Your task to perform on an android device: View the shopping cart on walmart.com. Image 0: 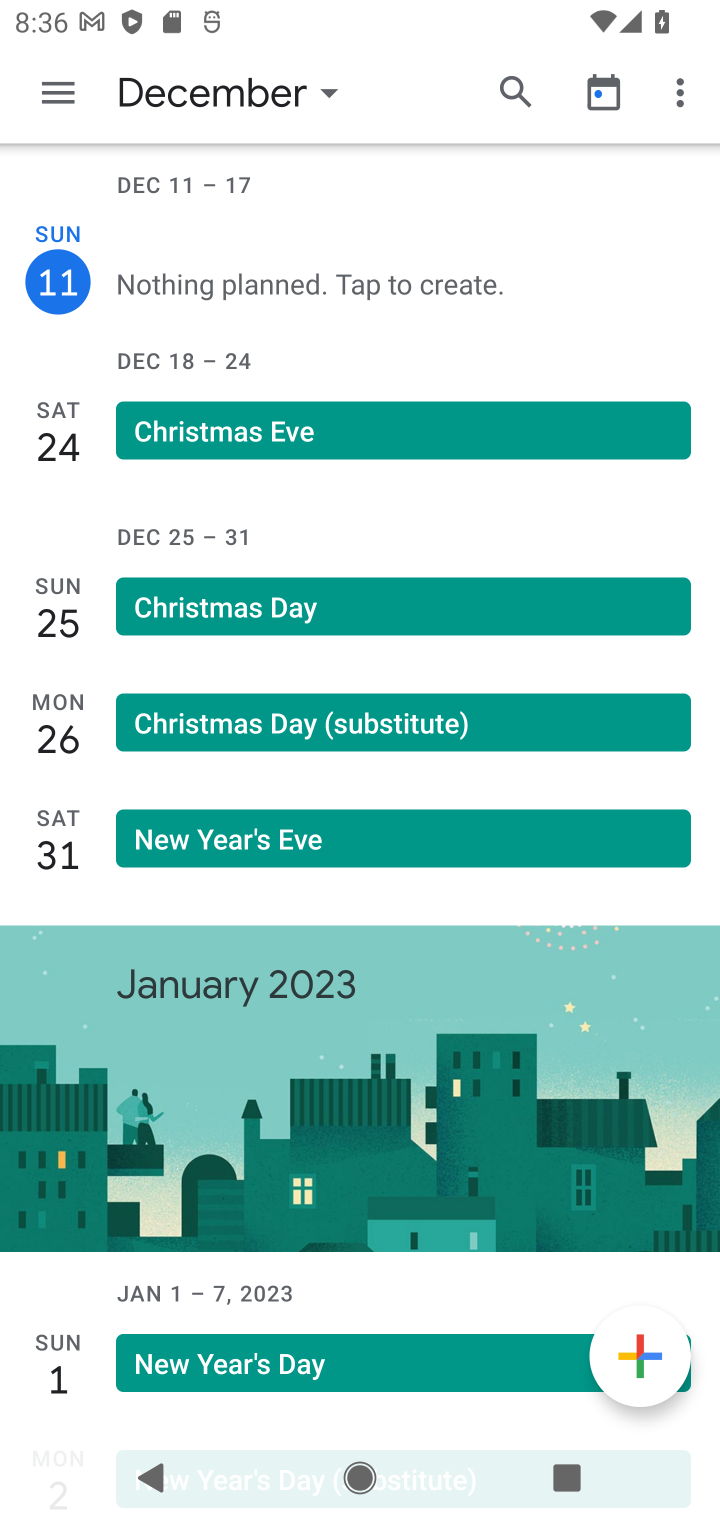
Step 0: press home button
Your task to perform on an android device: View the shopping cart on walmart.com. Image 1: 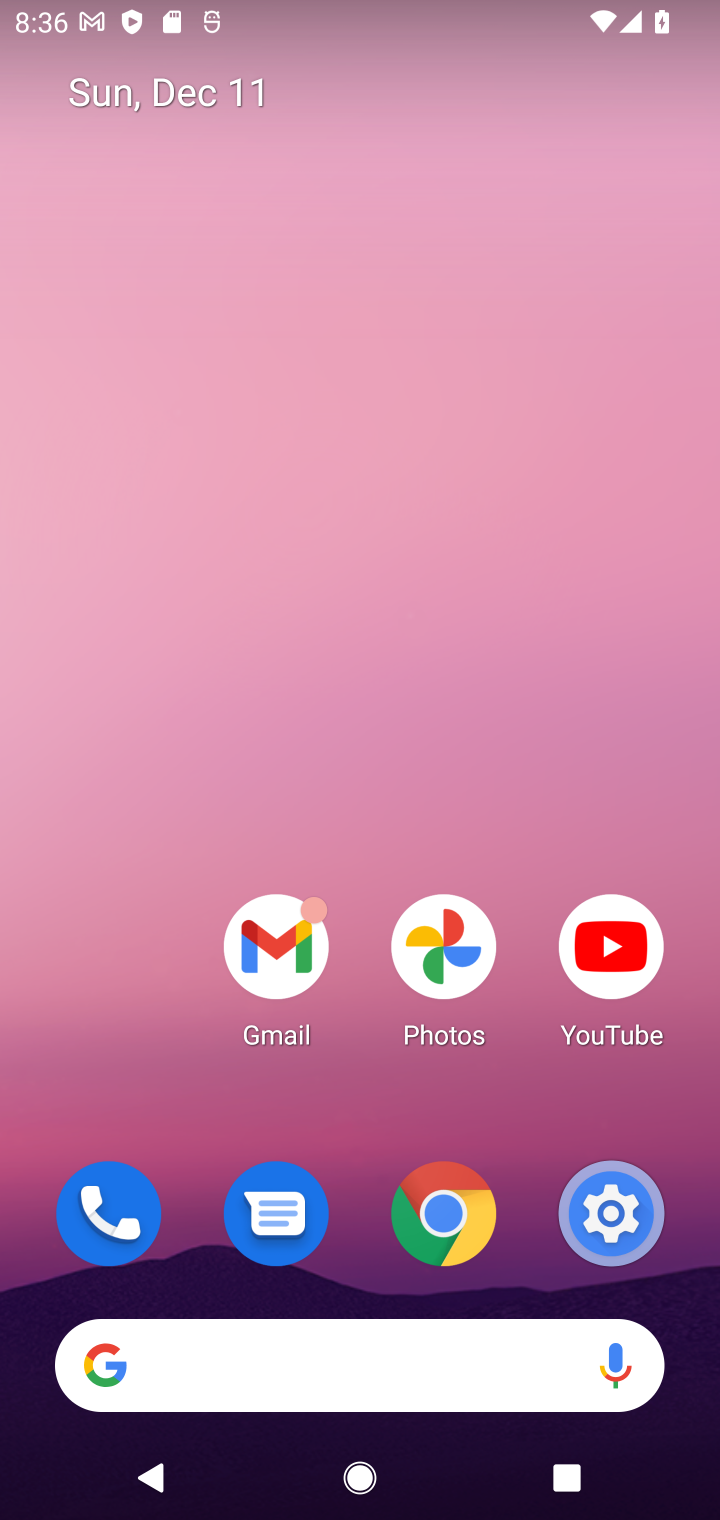
Step 1: click (343, 1343)
Your task to perform on an android device: View the shopping cart on walmart.com. Image 2: 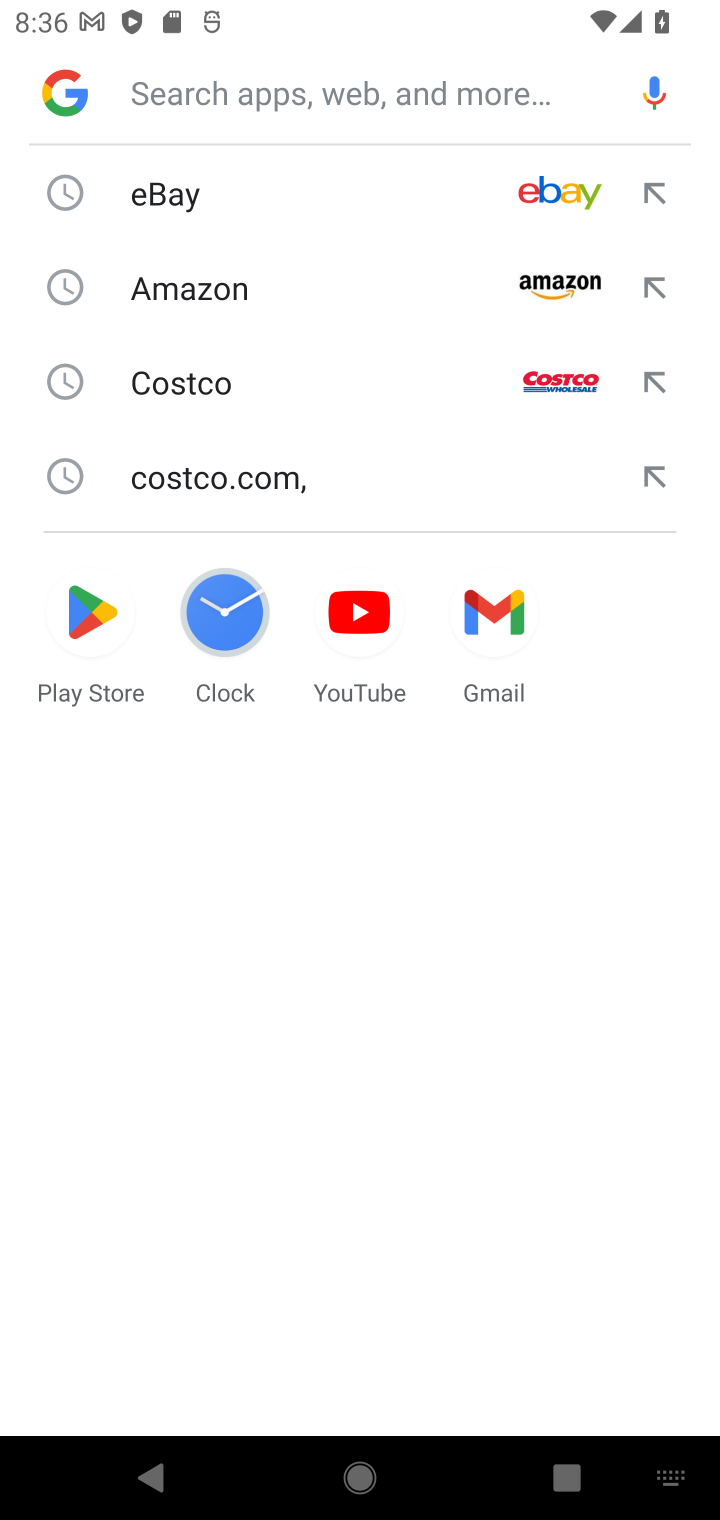
Step 2: type "walmart"
Your task to perform on an android device: View the shopping cart on walmart.com. Image 3: 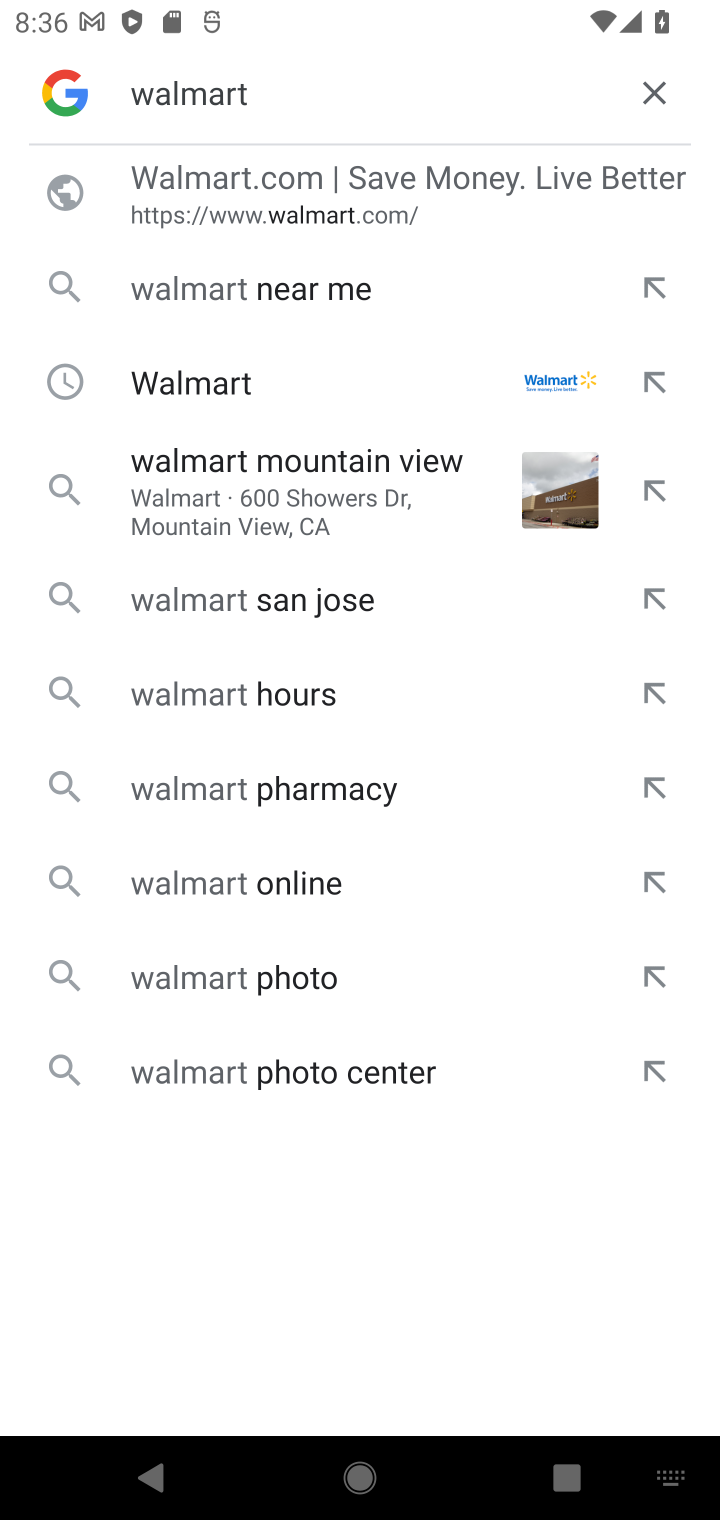
Step 3: click (184, 232)
Your task to perform on an android device: View the shopping cart on walmart.com. Image 4: 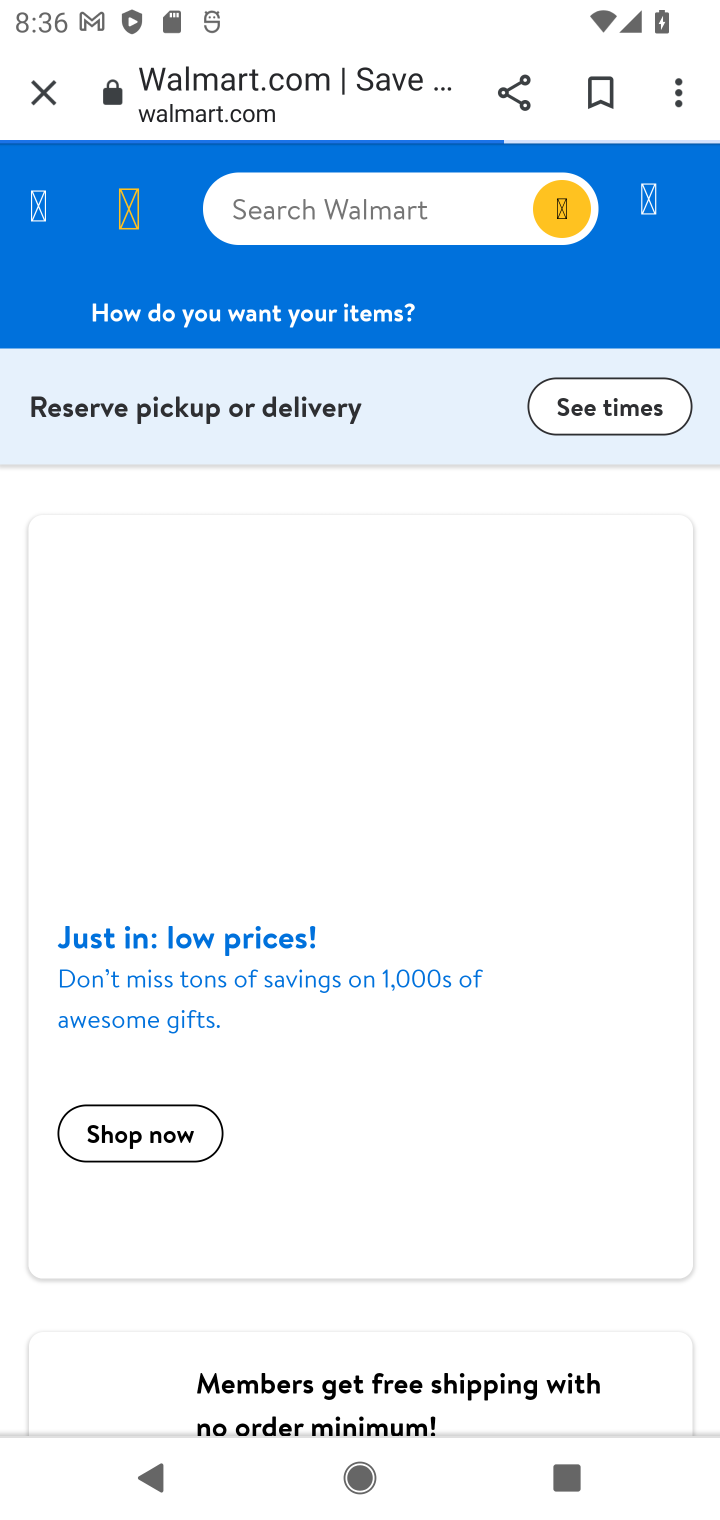
Step 4: click (290, 253)
Your task to perform on an android device: View the shopping cart on walmart.com. Image 5: 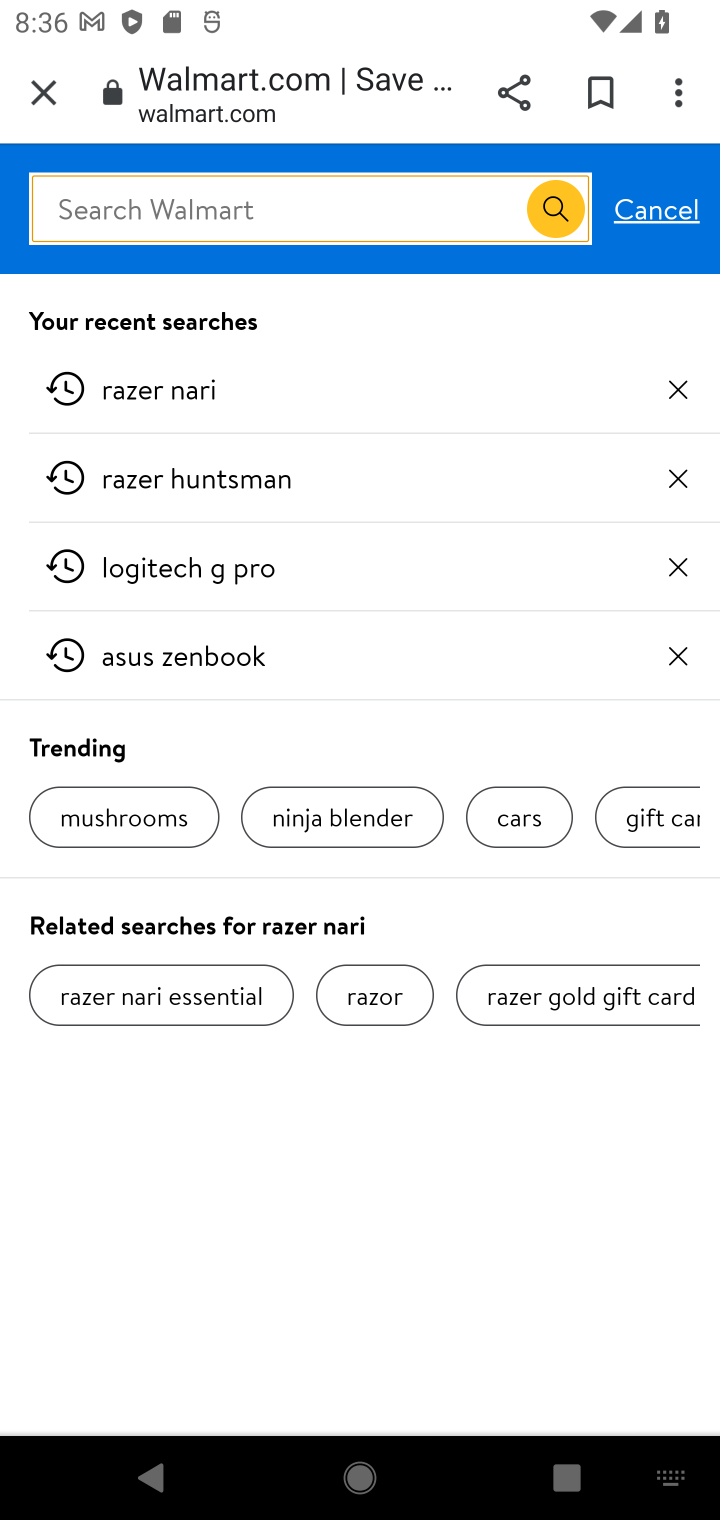
Step 5: click (645, 224)
Your task to perform on an android device: View the shopping cart on walmart.com. Image 6: 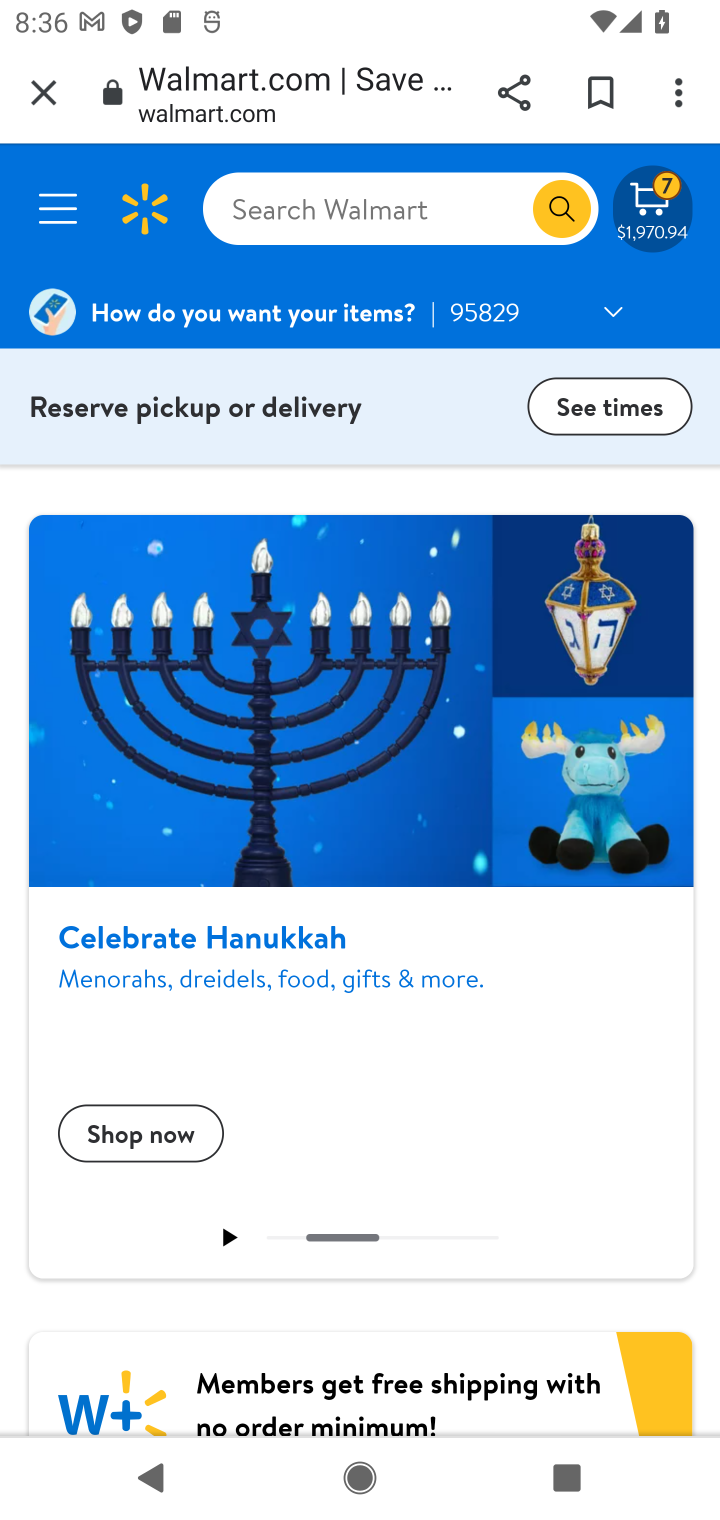
Step 6: click (645, 224)
Your task to perform on an android device: View the shopping cart on walmart.com. Image 7: 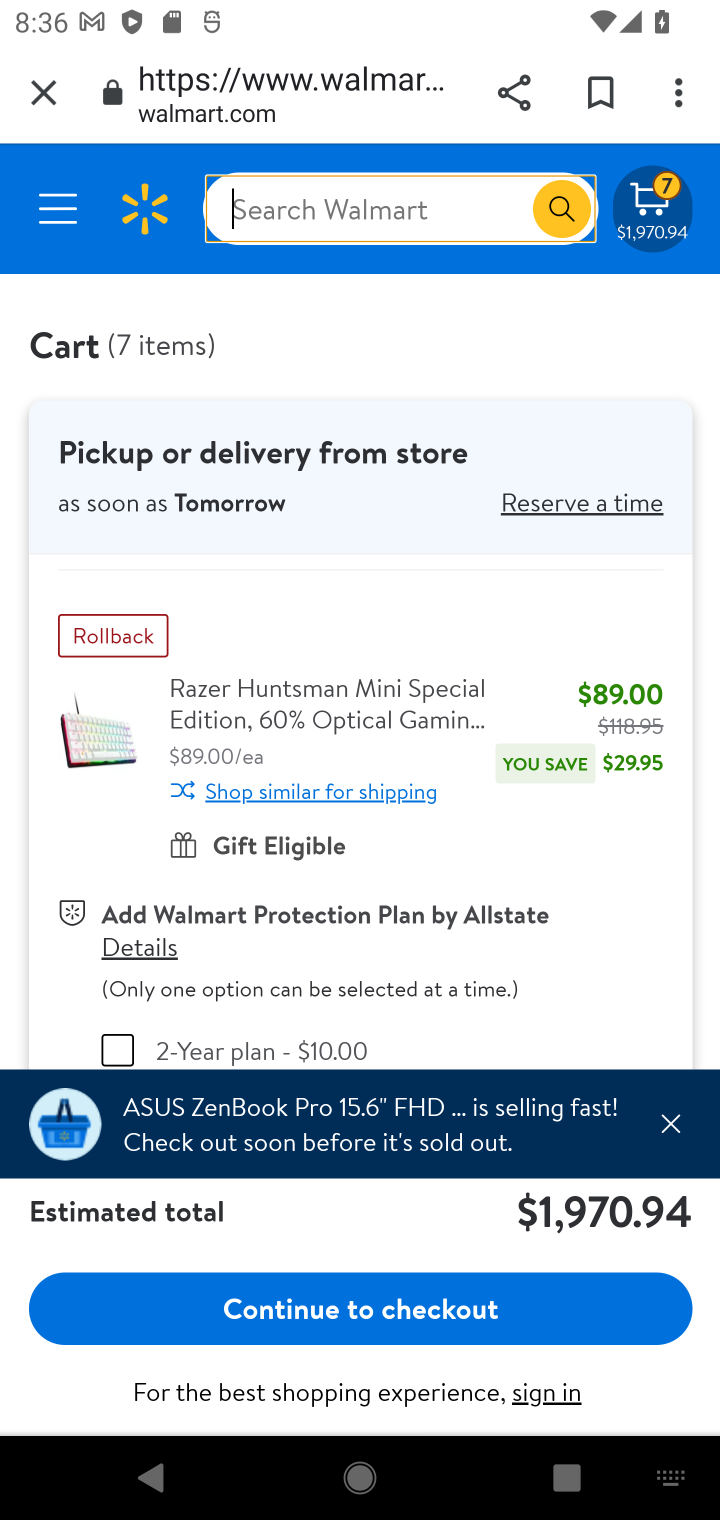
Step 7: click (667, 1131)
Your task to perform on an android device: View the shopping cart on walmart.com. Image 8: 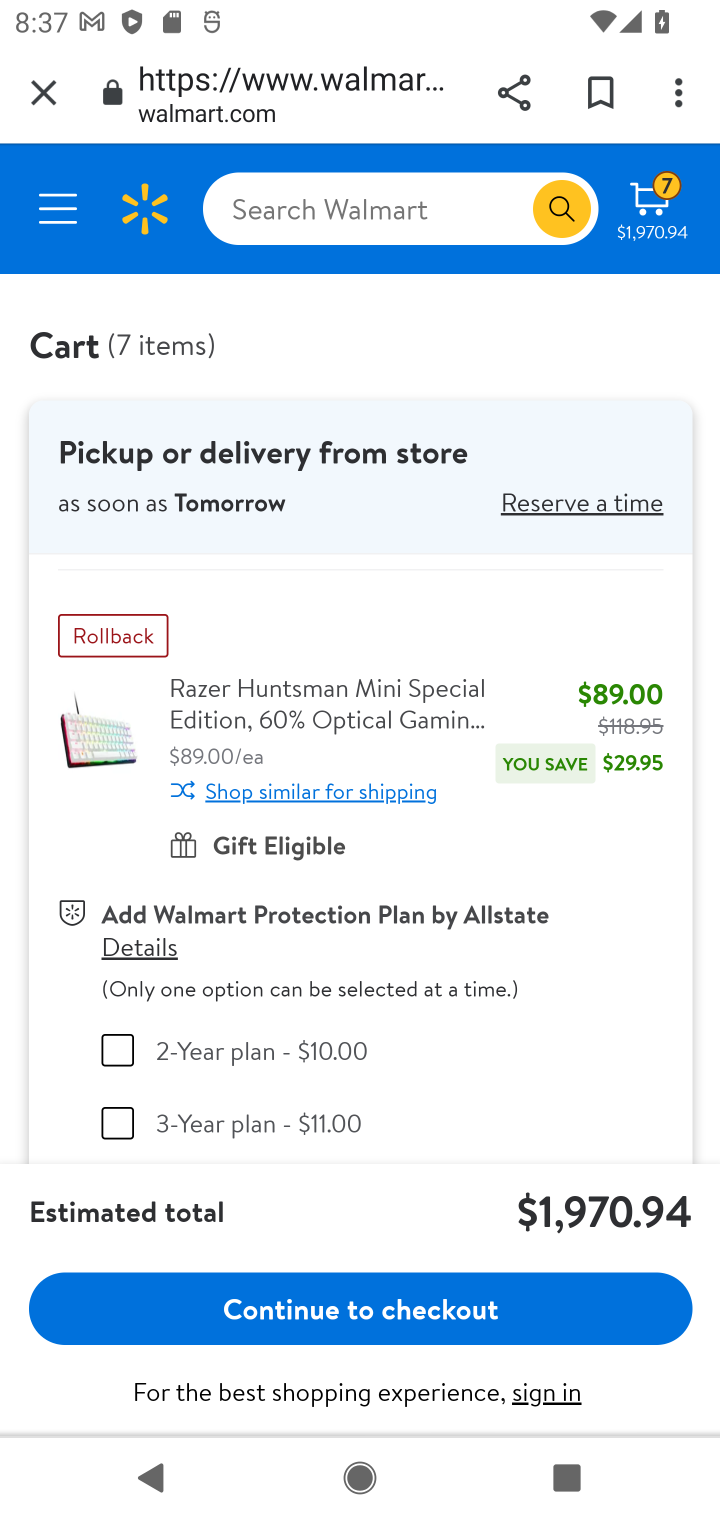
Step 8: task complete